Your task to perform on an android device: turn off airplane mode Image 0: 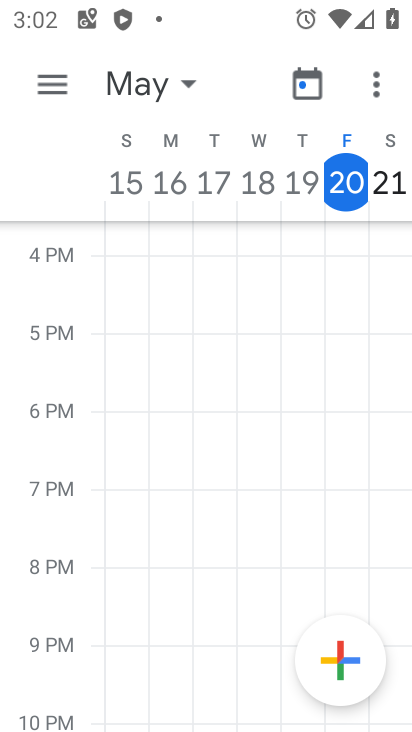
Step 0: press home button
Your task to perform on an android device: turn off airplane mode Image 1: 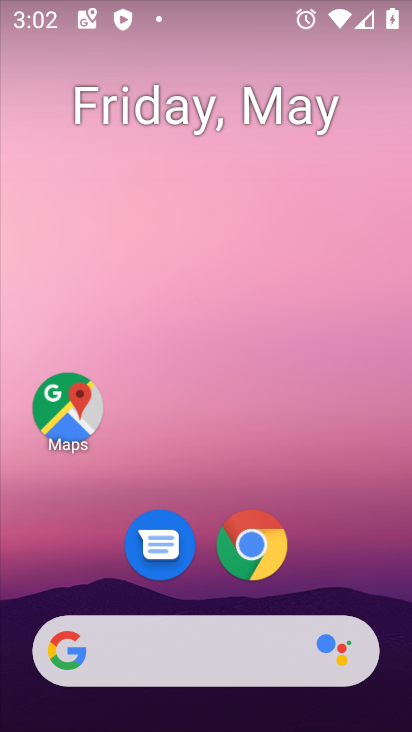
Step 1: drag from (330, 585) to (311, 87)
Your task to perform on an android device: turn off airplane mode Image 2: 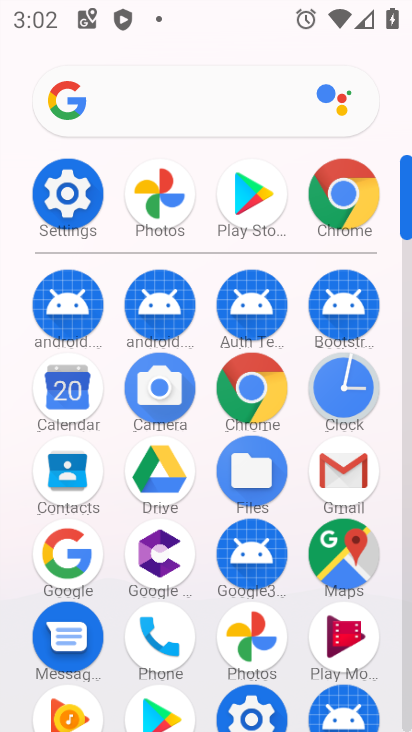
Step 2: click (77, 194)
Your task to perform on an android device: turn off airplane mode Image 3: 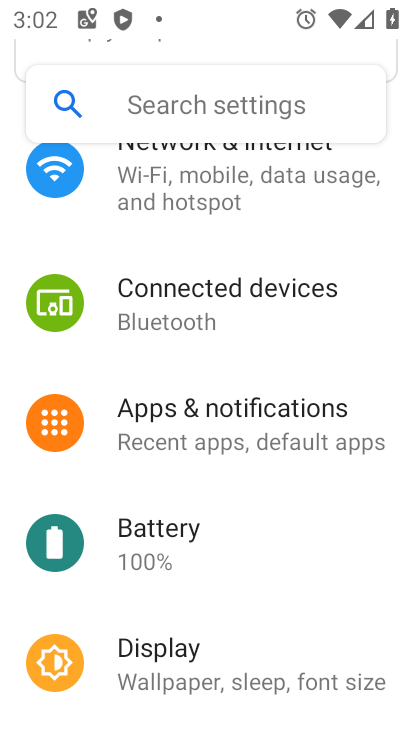
Step 3: click (251, 192)
Your task to perform on an android device: turn off airplane mode Image 4: 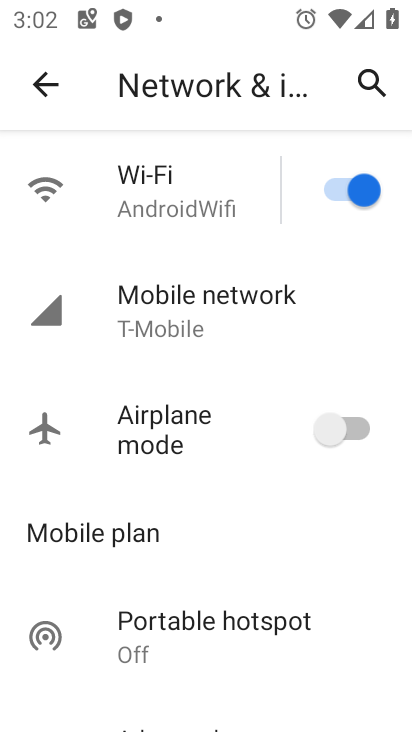
Step 4: task complete